Your task to perform on an android device: empty trash in google photos Image 0: 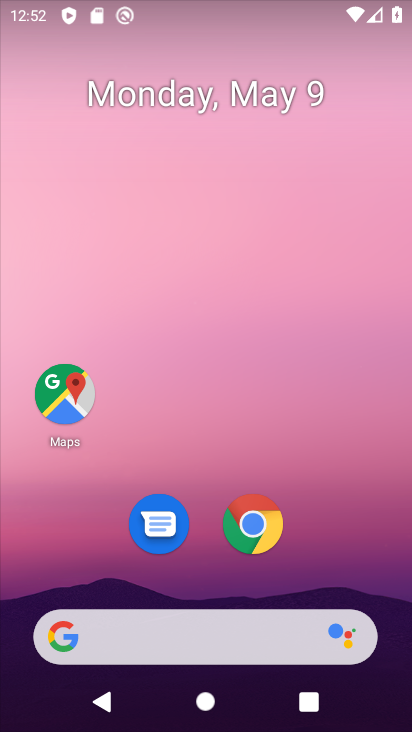
Step 0: drag from (365, 154) to (375, 14)
Your task to perform on an android device: empty trash in google photos Image 1: 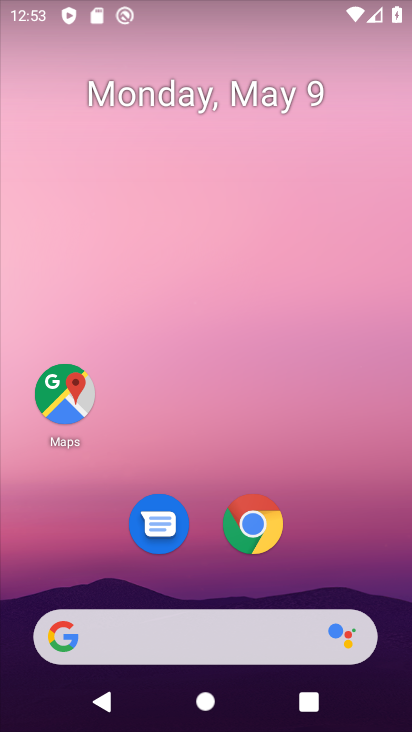
Step 1: drag from (202, 543) to (267, 49)
Your task to perform on an android device: empty trash in google photos Image 2: 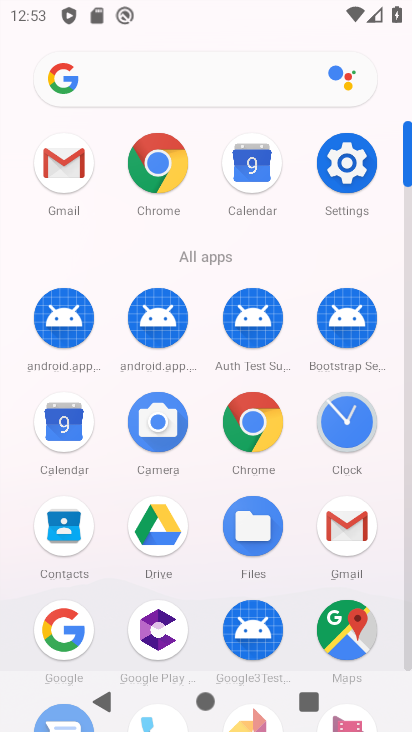
Step 2: drag from (306, 578) to (325, 135)
Your task to perform on an android device: empty trash in google photos Image 3: 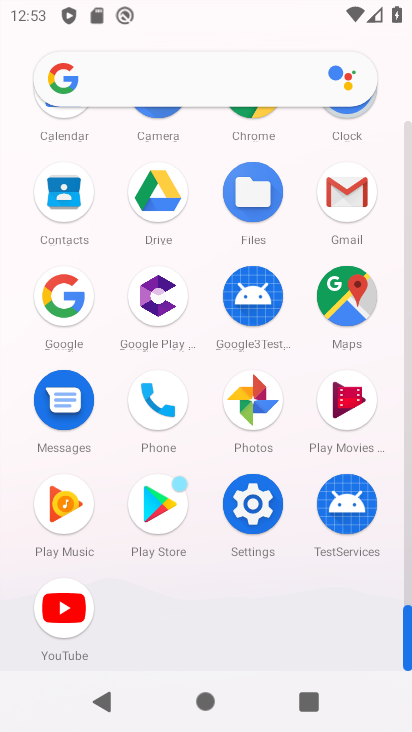
Step 3: click (259, 393)
Your task to perform on an android device: empty trash in google photos Image 4: 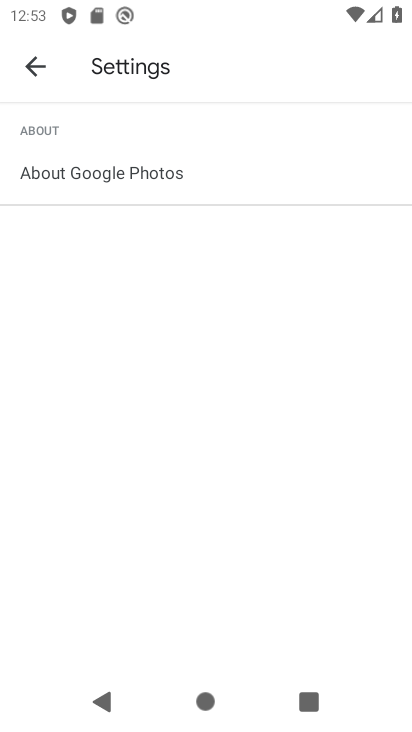
Step 4: click (120, 174)
Your task to perform on an android device: empty trash in google photos Image 5: 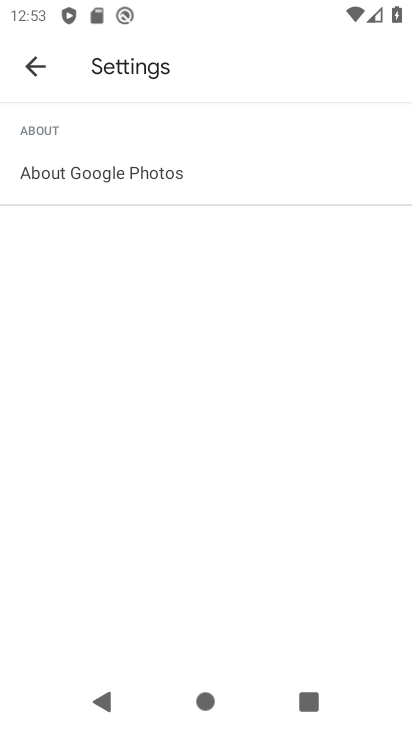
Step 5: click (33, 50)
Your task to perform on an android device: empty trash in google photos Image 6: 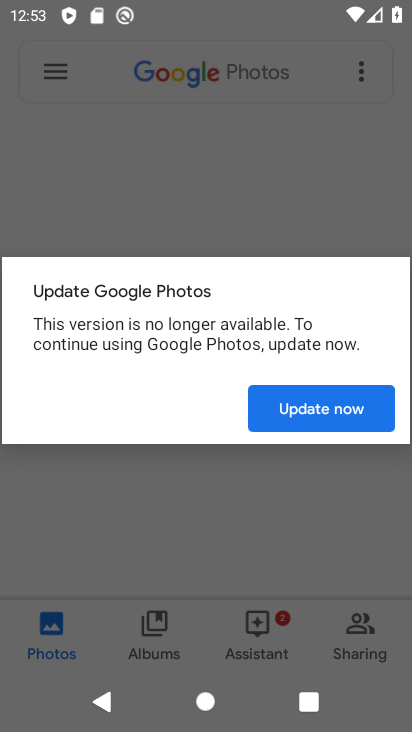
Step 6: click (273, 403)
Your task to perform on an android device: empty trash in google photos Image 7: 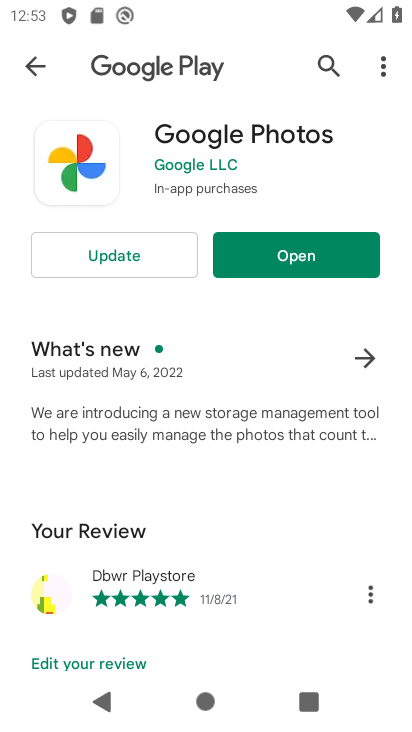
Step 7: click (287, 254)
Your task to perform on an android device: empty trash in google photos Image 8: 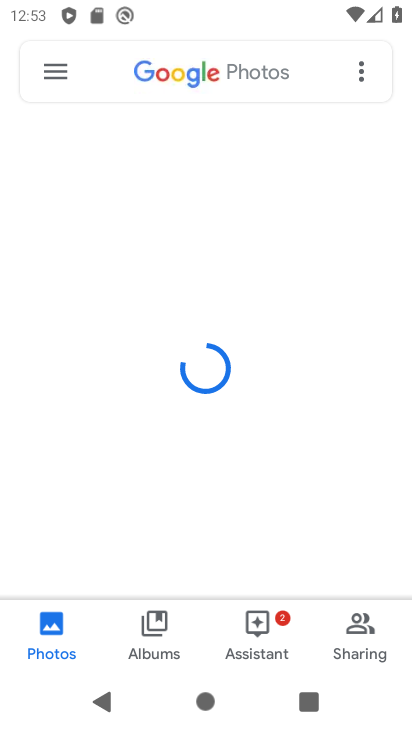
Step 8: click (50, 60)
Your task to perform on an android device: empty trash in google photos Image 9: 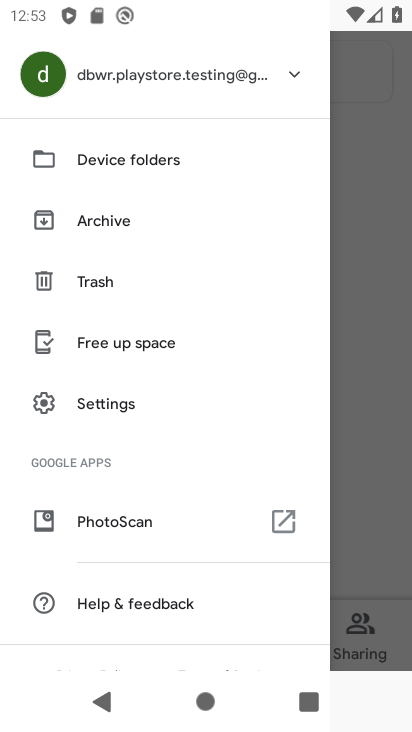
Step 9: click (85, 281)
Your task to perform on an android device: empty trash in google photos Image 10: 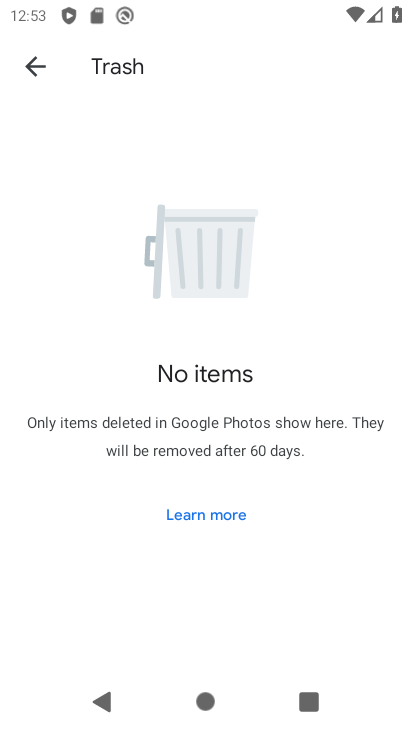
Step 10: task complete